Your task to perform on an android device: Search for seafood restaurants on Google Maps Image 0: 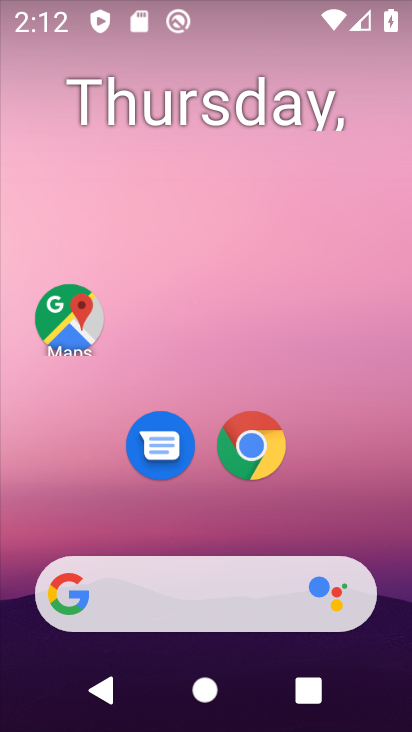
Step 0: click (47, 320)
Your task to perform on an android device: Search for seafood restaurants on Google Maps Image 1: 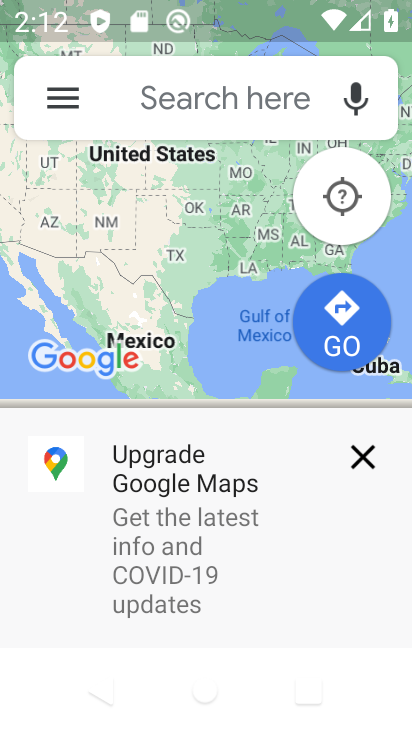
Step 1: click (195, 111)
Your task to perform on an android device: Search for seafood restaurants on Google Maps Image 2: 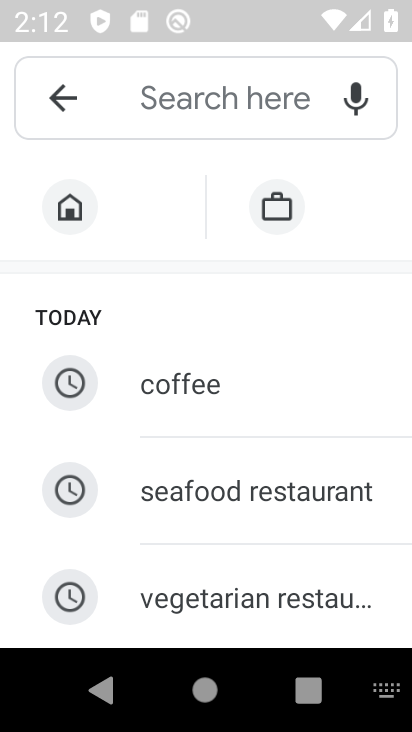
Step 2: click (190, 497)
Your task to perform on an android device: Search for seafood restaurants on Google Maps Image 3: 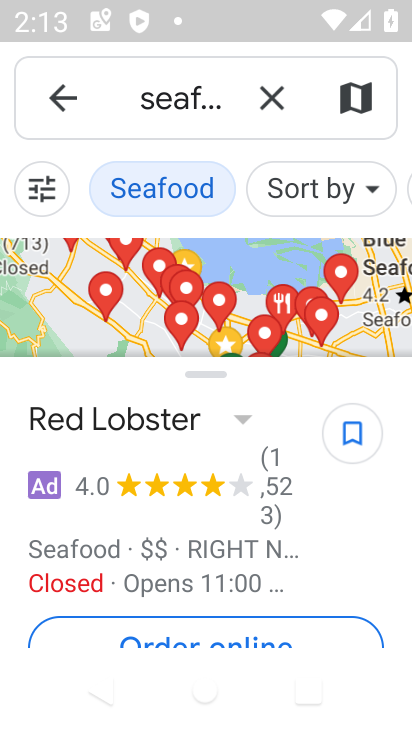
Step 3: task complete